Your task to perform on an android device: Open Google Image 0: 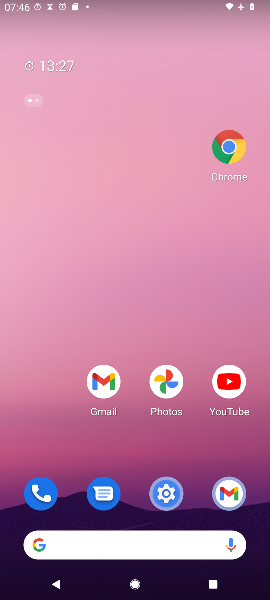
Step 0: press home button
Your task to perform on an android device: Open Google Image 1: 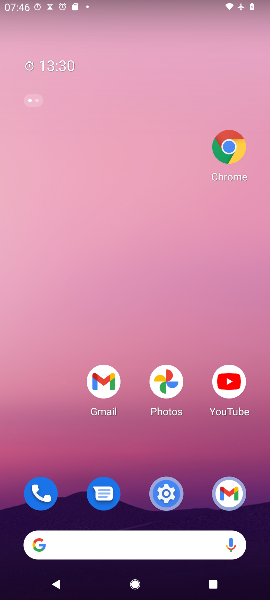
Step 1: drag from (54, 444) to (72, 158)
Your task to perform on an android device: Open Google Image 2: 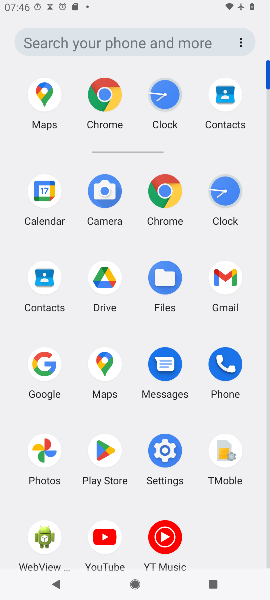
Step 2: click (43, 356)
Your task to perform on an android device: Open Google Image 3: 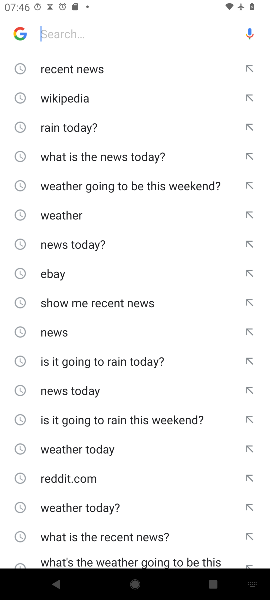
Step 3: click (16, 32)
Your task to perform on an android device: Open Google Image 4: 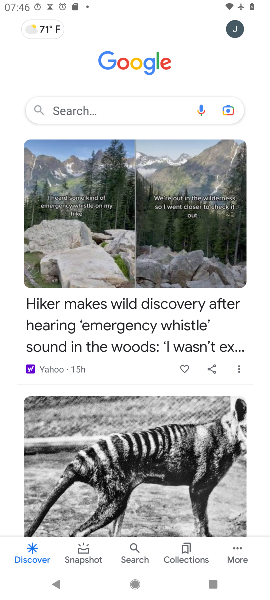
Step 4: task complete